Your task to perform on an android device: change the upload size in google photos Image 0: 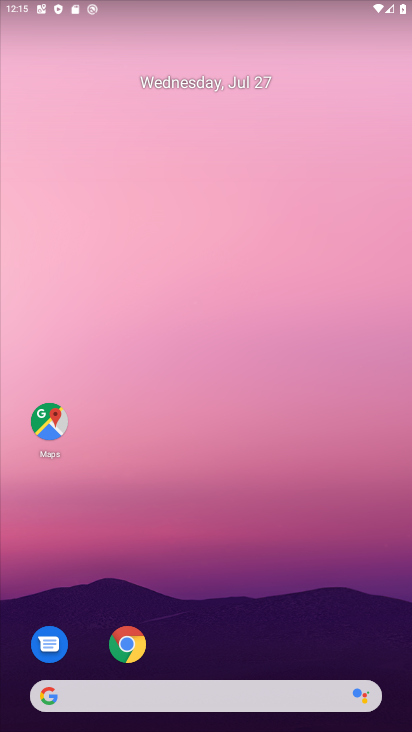
Step 0: press home button
Your task to perform on an android device: change the upload size in google photos Image 1: 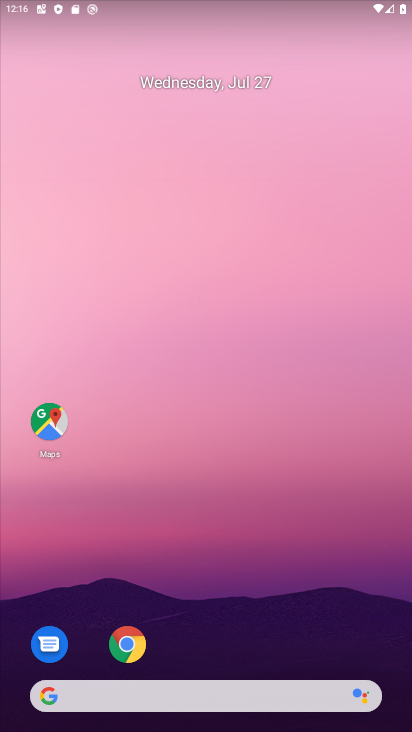
Step 1: drag from (243, 623) to (250, 153)
Your task to perform on an android device: change the upload size in google photos Image 2: 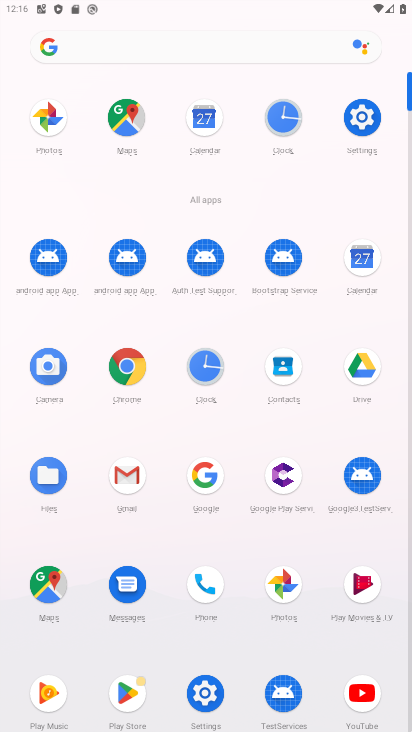
Step 2: click (267, 597)
Your task to perform on an android device: change the upload size in google photos Image 3: 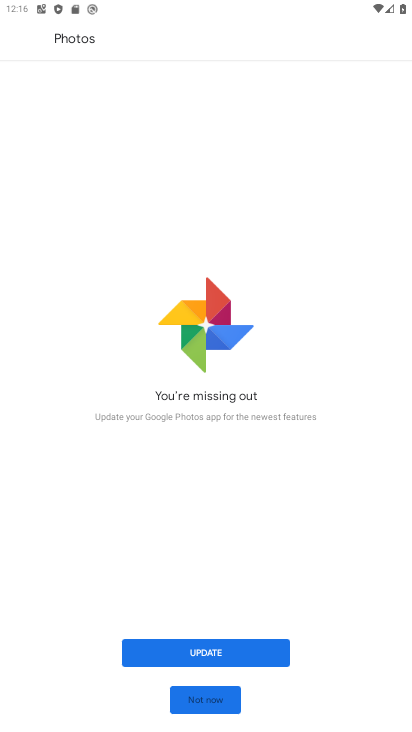
Step 3: click (189, 652)
Your task to perform on an android device: change the upload size in google photos Image 4: 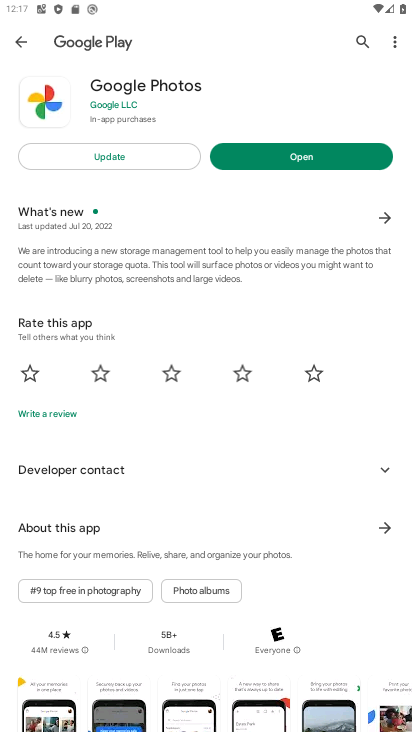
Step 4: click (151, 158)
Your task to perform on an android device: change the upload size in google photos Image 5: 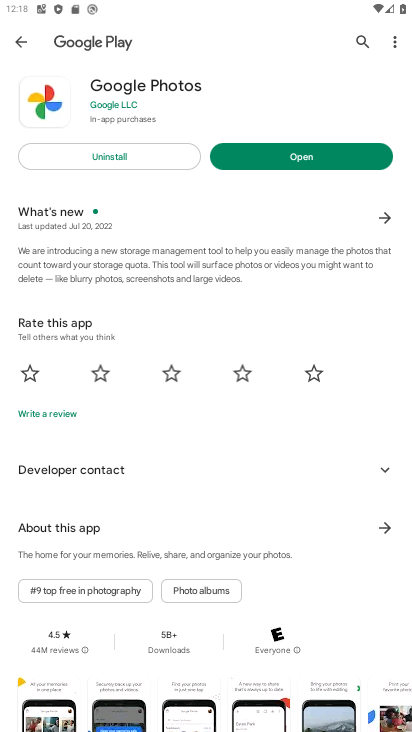
Step 5: click (322, 160)
Your task to perform on an android device: change the upload size in google photos Image 6: 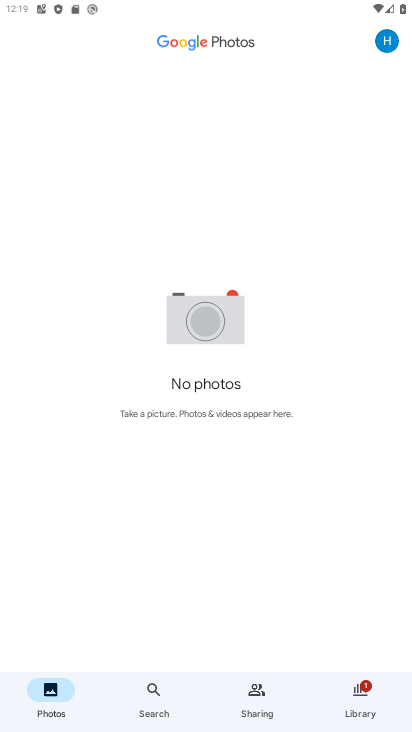
Step 6: click (384, 34)
Your task to perform on an android device: change the upload size in google photos Image 7: 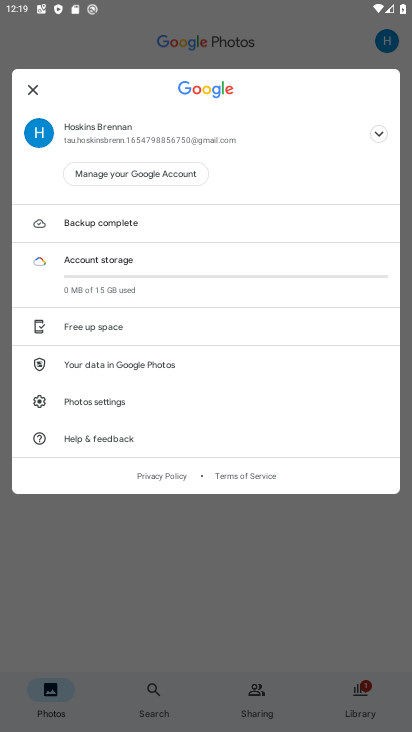
Step 7: click (75, 397)
Your task to perform on an android device: change the upload size in google photos Image 8: 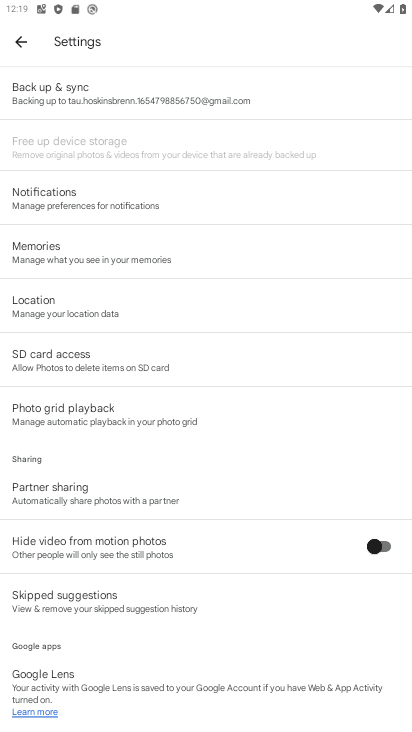
Step 8: click (167, 99)
Your task to perform on an android device: change the upload size in google photos Image 9: 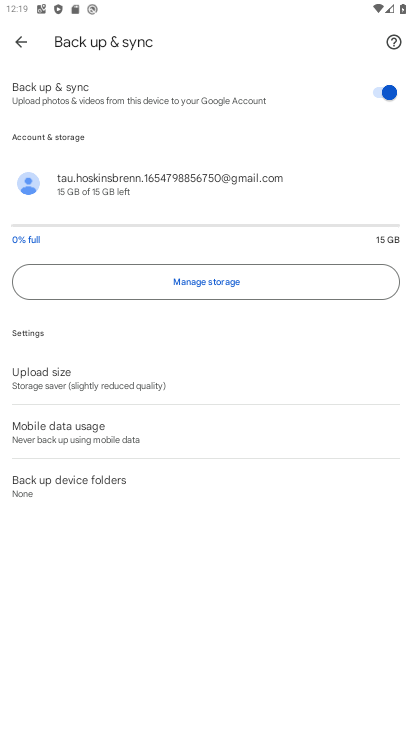
Step 9: click (56, 383)
Your task to perform on an android device: change the upload size in google photos Image 10: 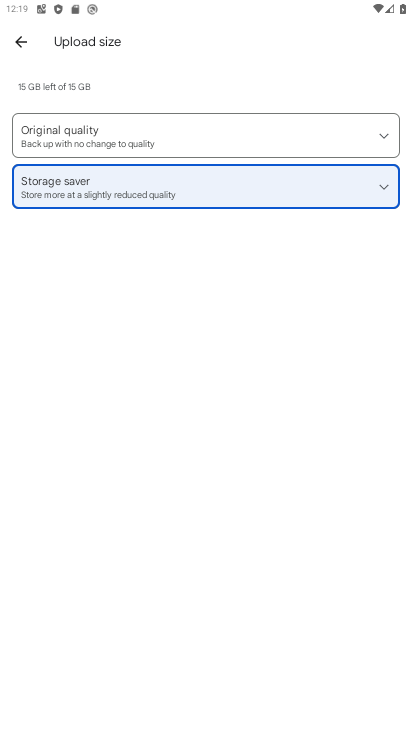
Step 10: click (144, 146)
Your task to perform on an android device: change the upload size in google photos Image 11: 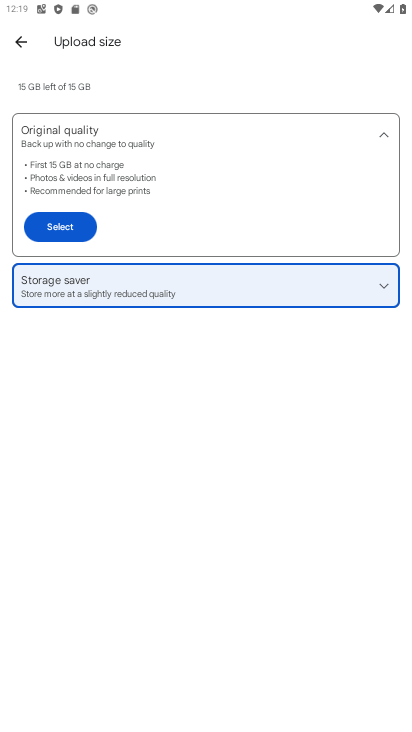
Step 11: click (72, 221)
Your task to perform on an android device: change the upload size in google photos Image 12: 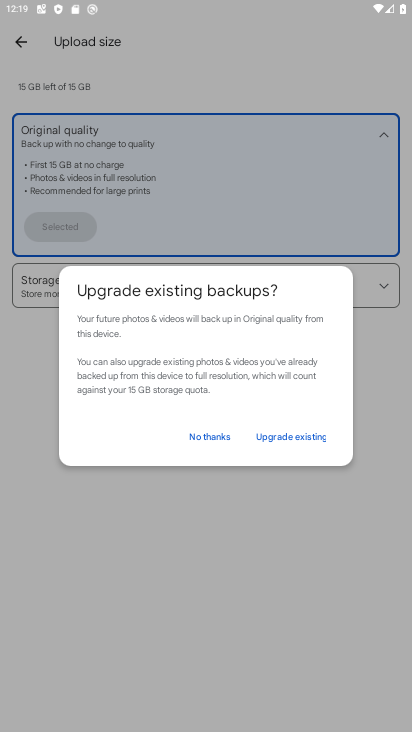
Step 12: task complete